Your task to perform on an android device: Do I have any events tomorrow? Image 0: 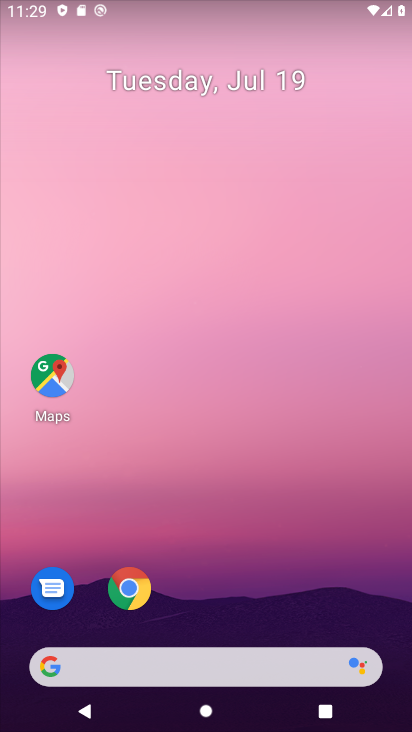
Step 0: drag from (384, 600) to (170, 40)
Your task to perform on an android device: Do I have any events tomorrow? Image 1: 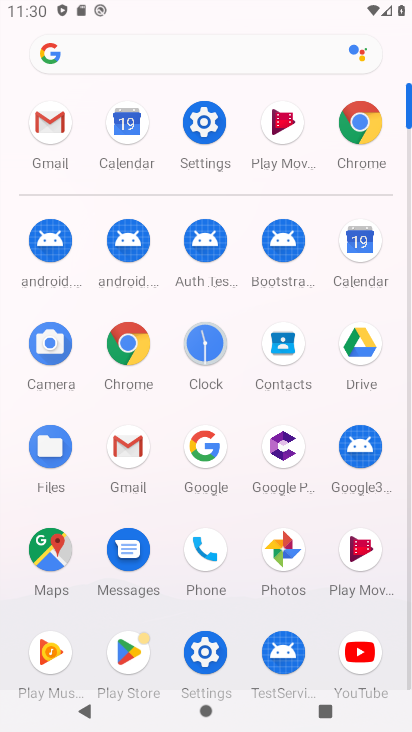
Step 1: click (330, 236)
Your task to perform on an android device: Do I have any events tomorrow? Image 2: 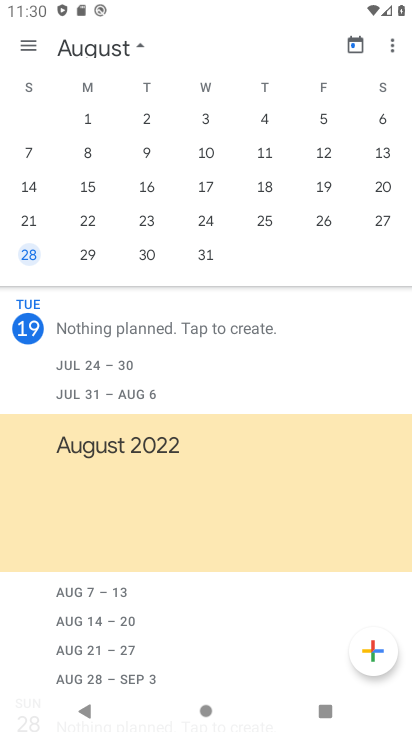
Step 2: task complete